Your task to perform on an android device: show emergency info Image 0: 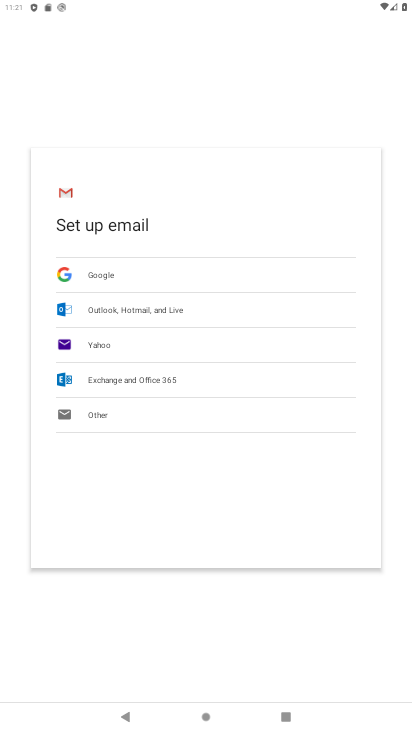
Step 0: press home button
Your task to perform on an android device: show emergency info Image 1: 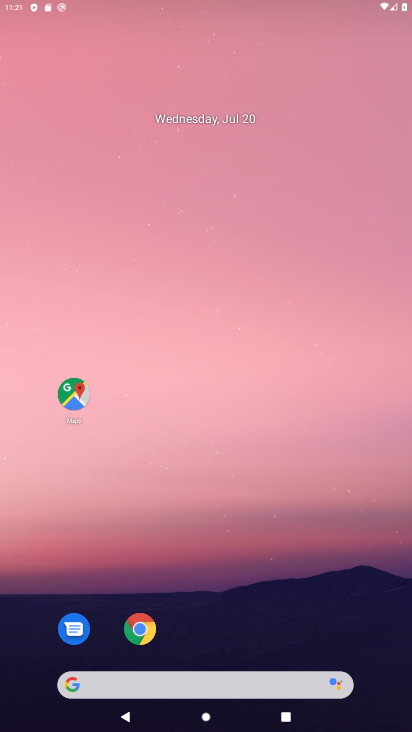
Step 1: drag from (213, 663) to (329, 4)
Your task to perform on an android device: show emergency info Image 2: 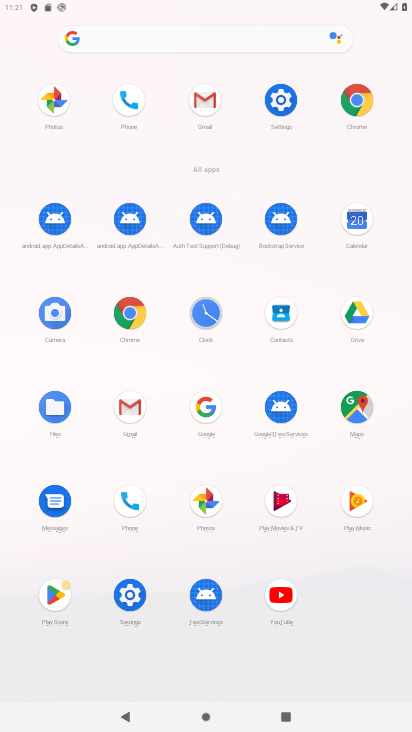
Step 2: click (288, 110)
Your task to perform on an android device: show emergency info Image 3: 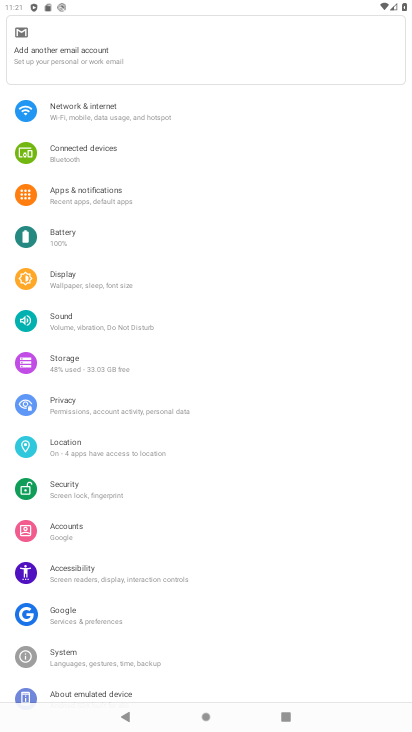
Step 3: click (102, 686)
Your task to perform on an android device: show emergency info Image 4: 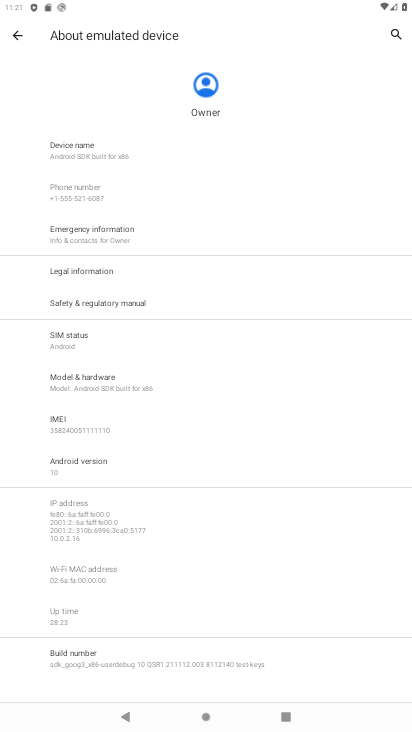
Step 4: click (134, 235)
Your task to perform on an android device: show emergency info Image 5: 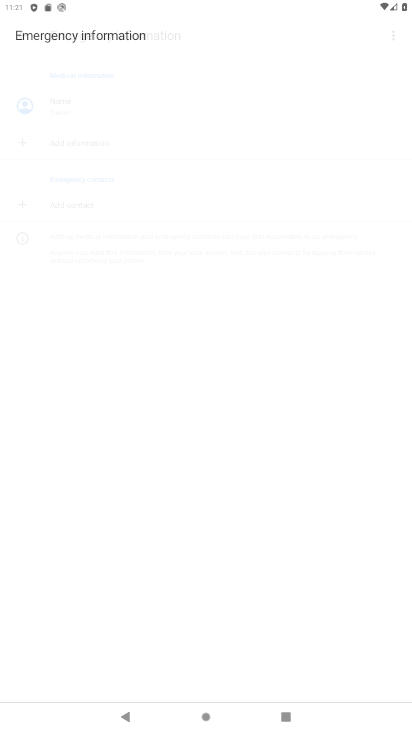
Step 5: task complete